Your task to perform on an android device: open device folders in google photos Image 0: 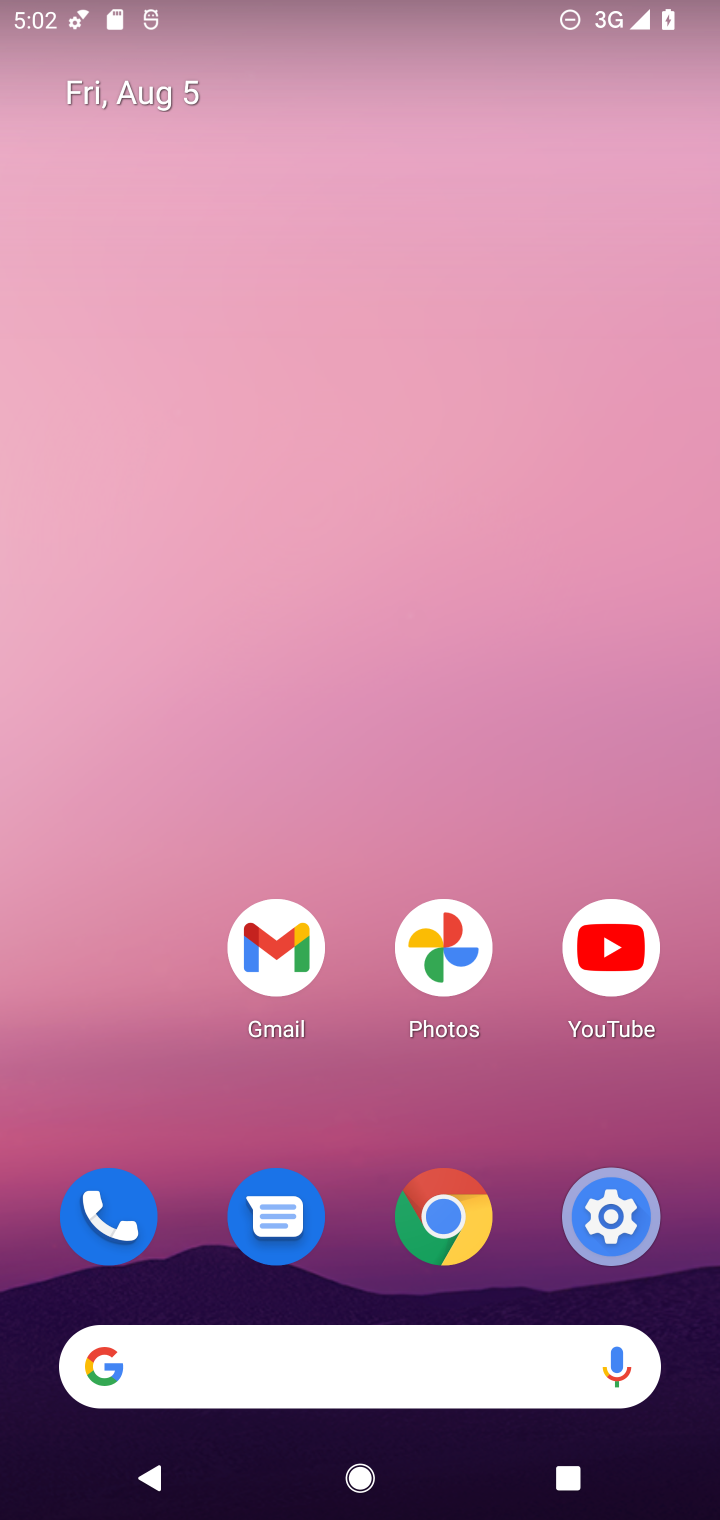
Step 0: click (438, 957)
Your task to perform on an android device: open device folders in google photos Image 1: 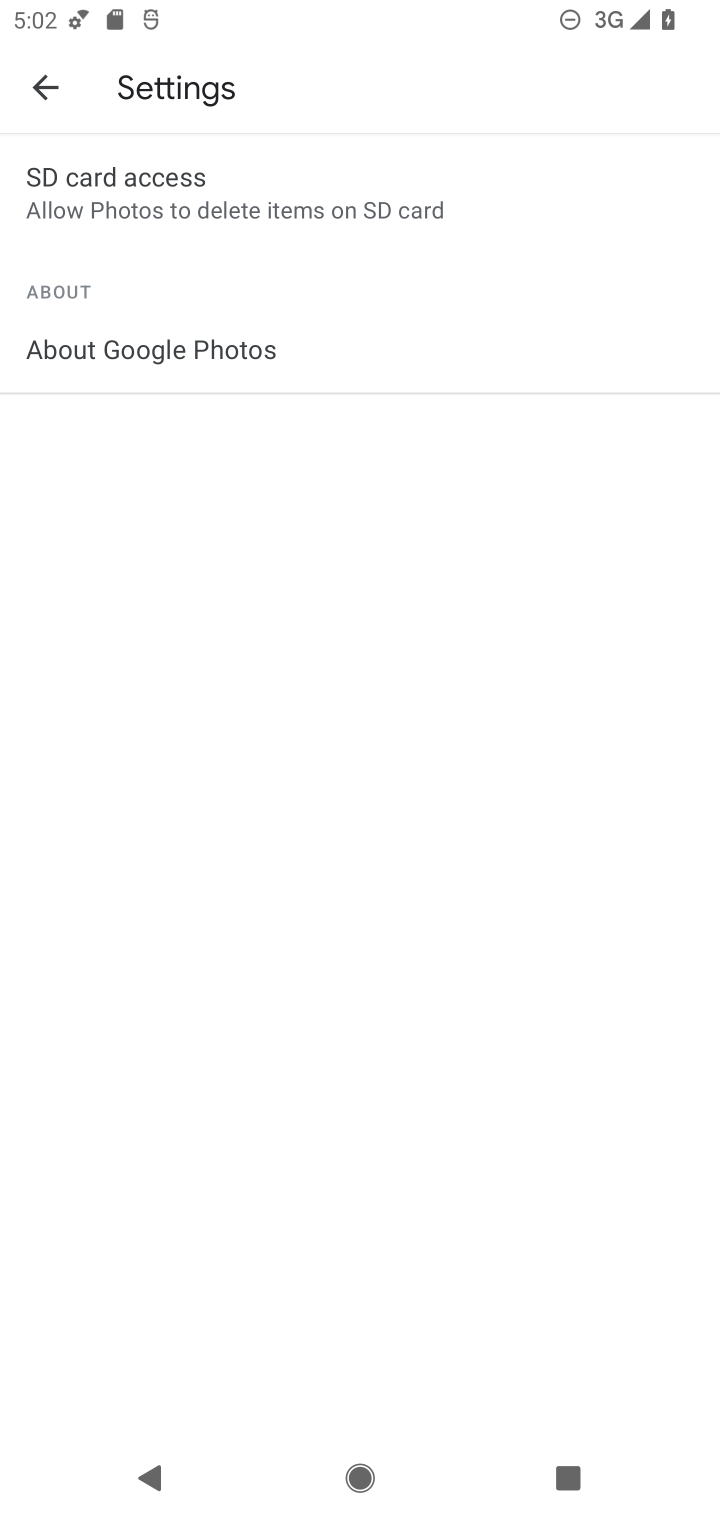
Step 1: click (29, 62)
Your task to perform on an android device: open device folders in google photos Image 2: 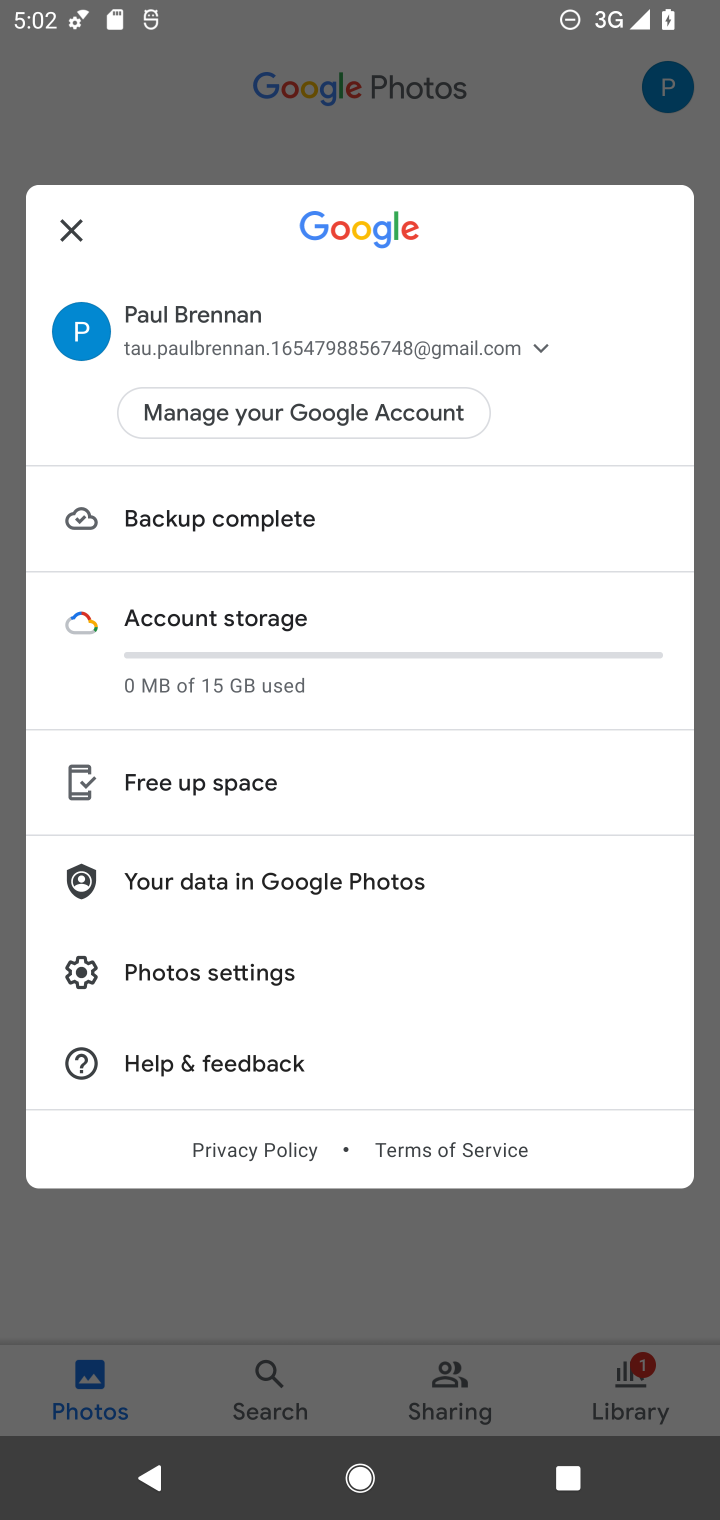
Step 2: click (79, 235)
Your task to perform on an android device: open device folders in google photos Image 3: 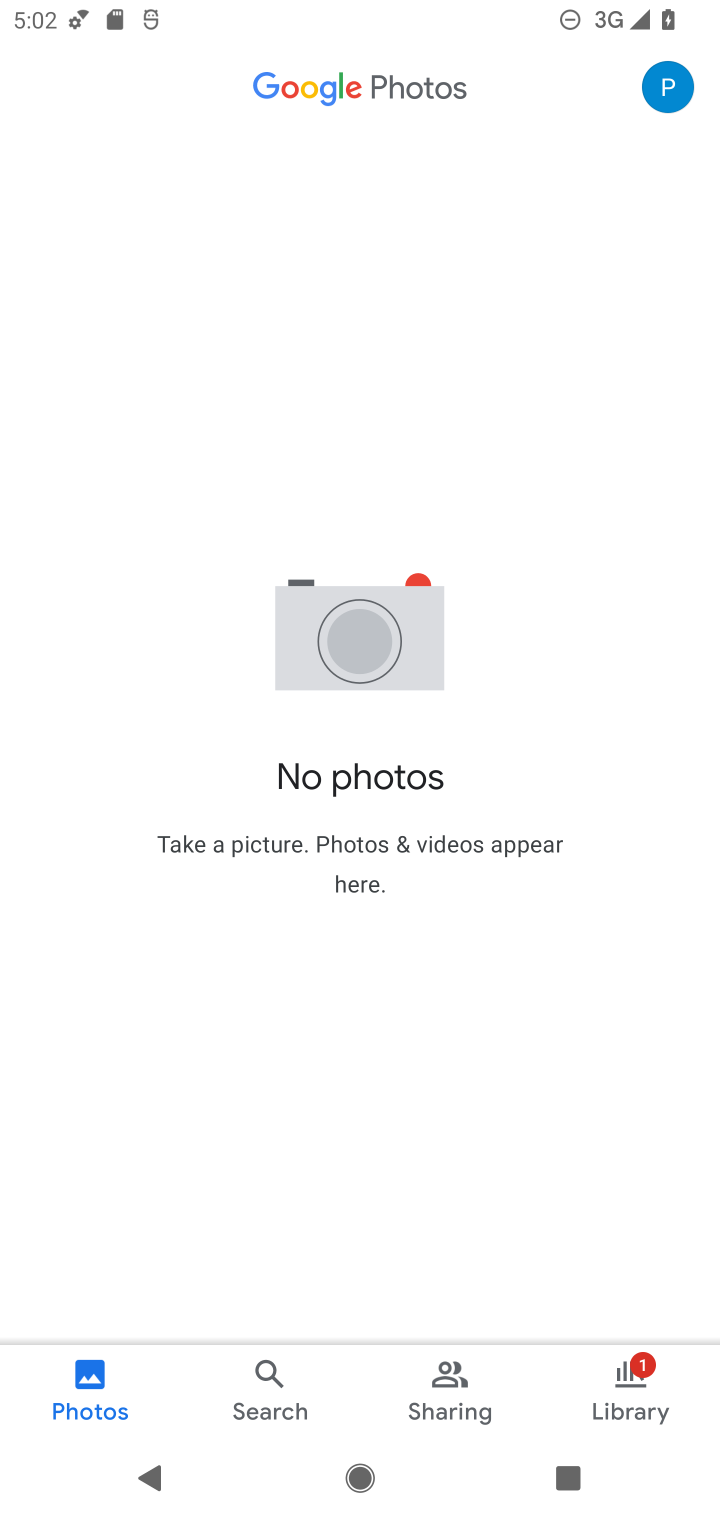
Step 3: click (245, 1403)
Your task to perform on an android device: open device folders in google photos Image 4: 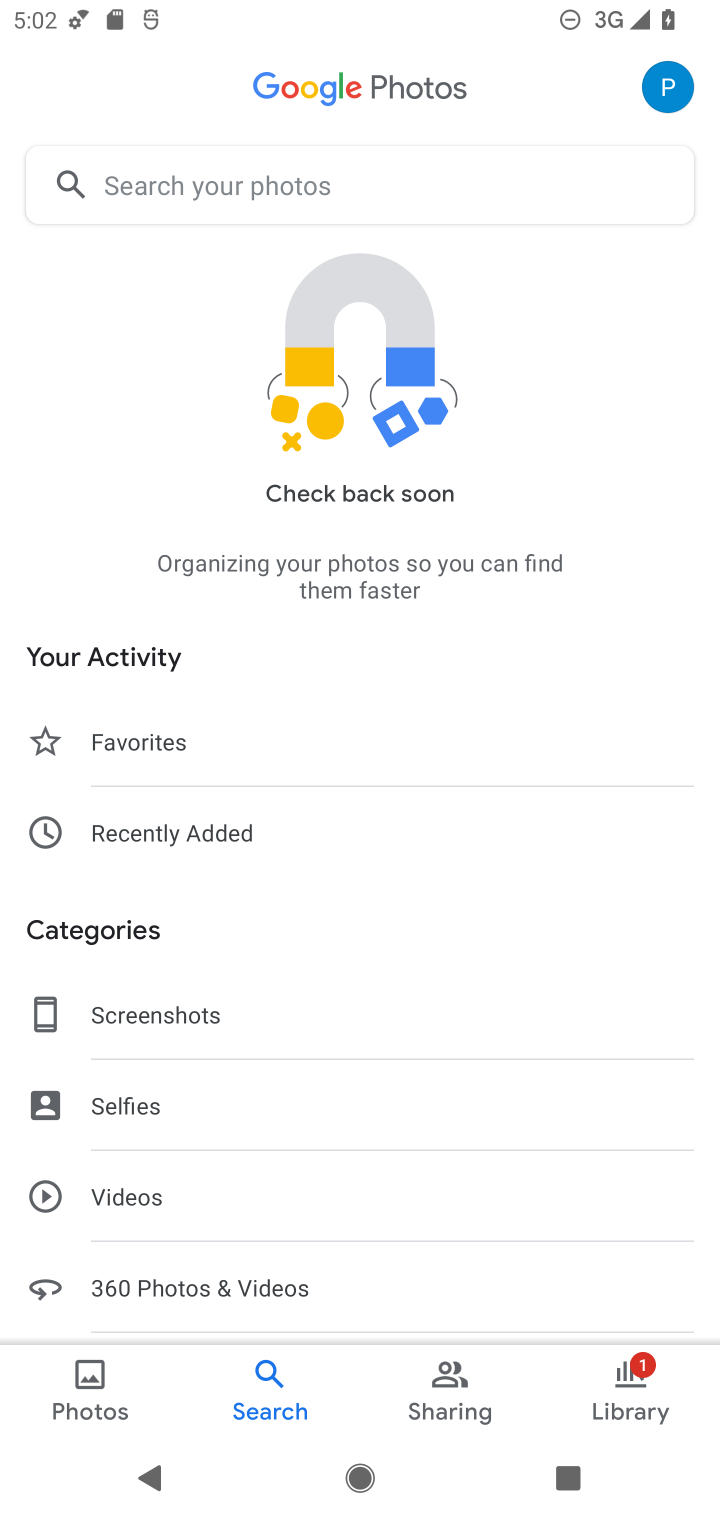
Step 4: task complete